Your task to perform on an android device: turn pop-ups off in chrome Image 0: 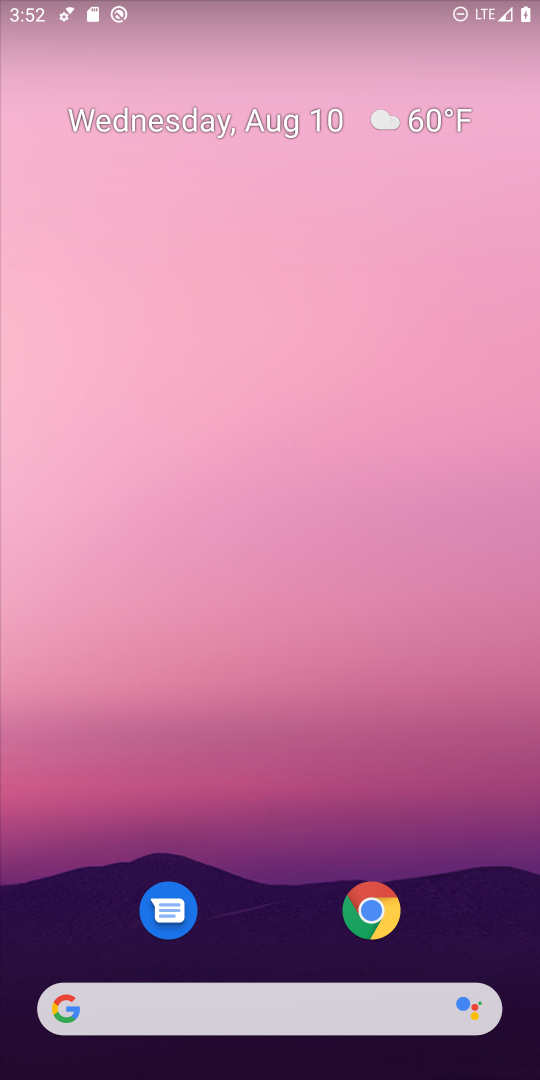
Step 0: click (347, 925)
Your task to perform on an android device: turn pop-ups off in chrome Image 1: 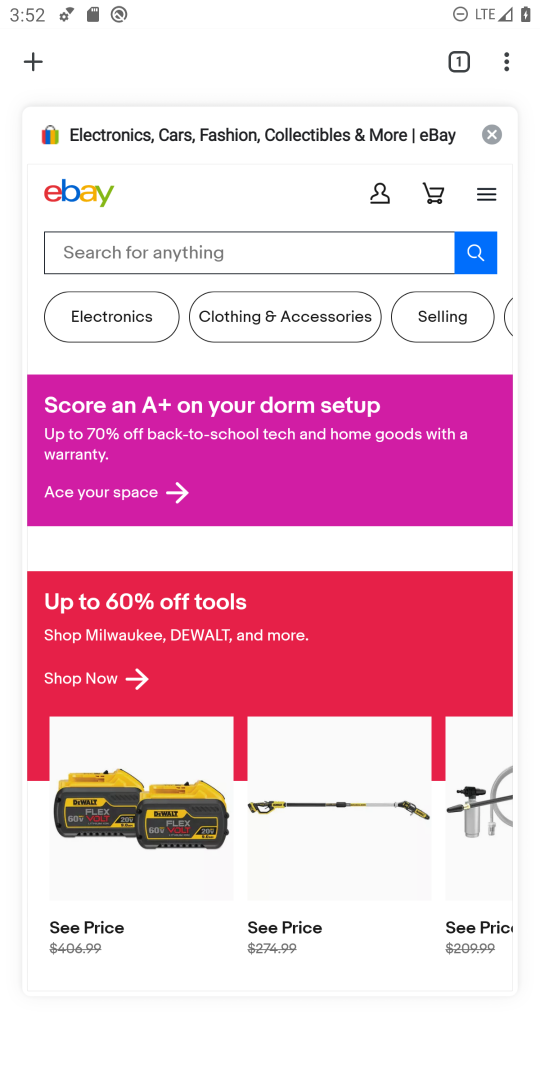
Step 1: click (503, 55)
Your task to perform on an android device: turn pop-ups off in chrome Image 2: 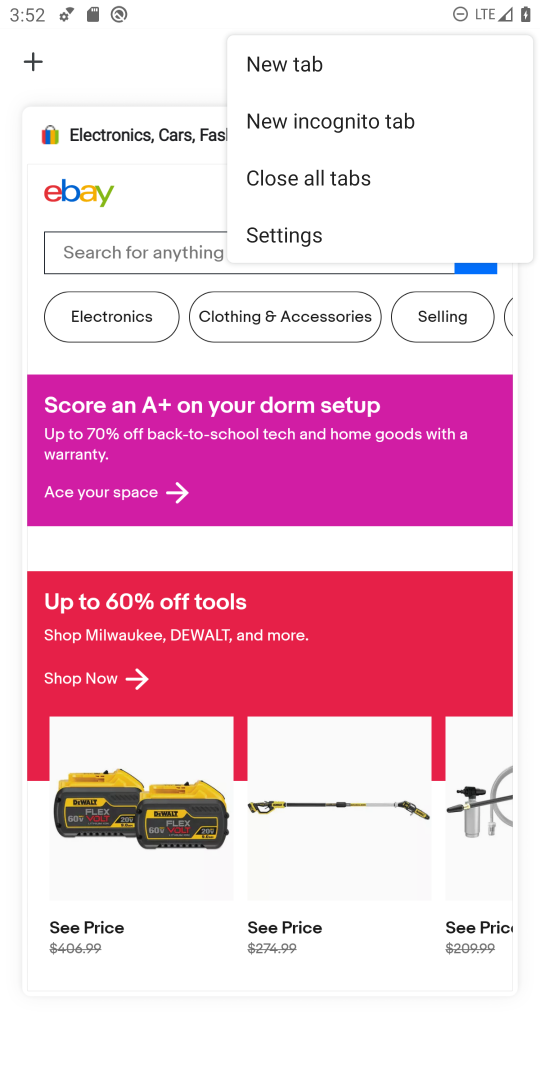
Step 2: click (290, 223)
Your task to perform on an android device: turn pop-ups off in chrome Image 3: 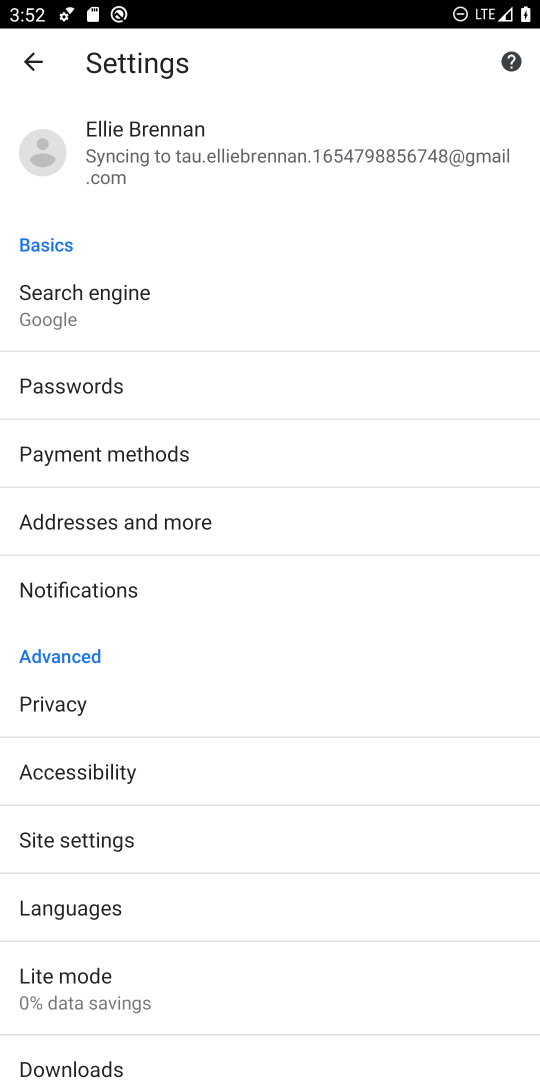
Step 3: click (122, 841)
Your task to perform on an android device: turn pop-ups off in chrome Image 4: 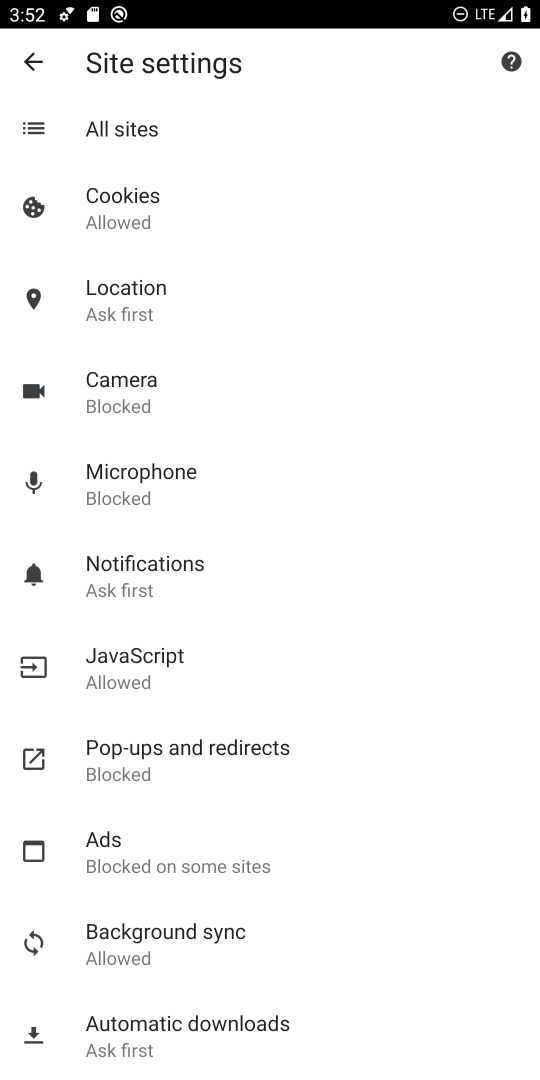
Step 4: click (158, 766)
Your task to perform on an android device: turn pop-ups off in chrome Image 5: 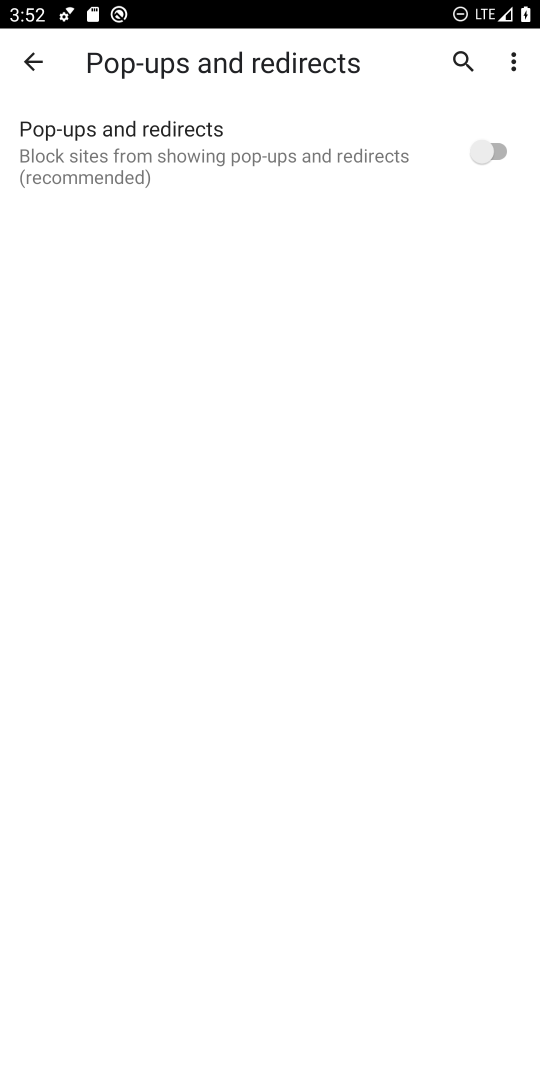
Step 5: task complete